Your task to perform on an android device: open device folders in google photos Image 0: 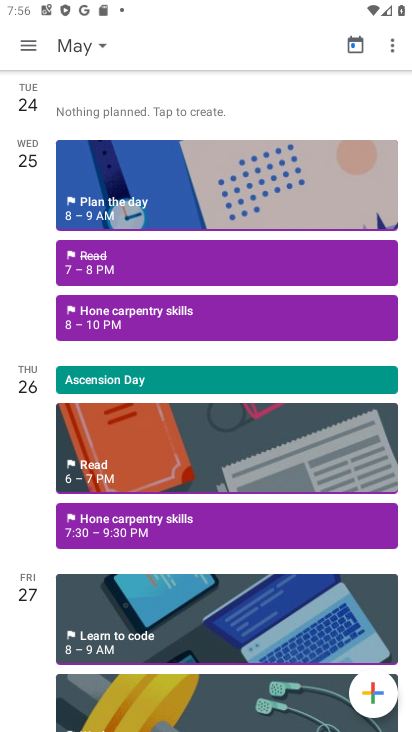
Step 0: press home button
Your task to perform on an android device: open device folders in google photos Image 1: 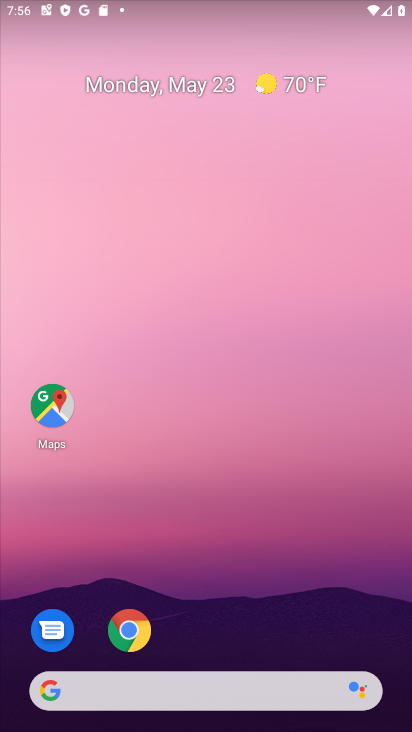
Step 1: drag from (316, 571) to (322, 139)
Your task to perform on an android device: open device folders in google photos Image 2: 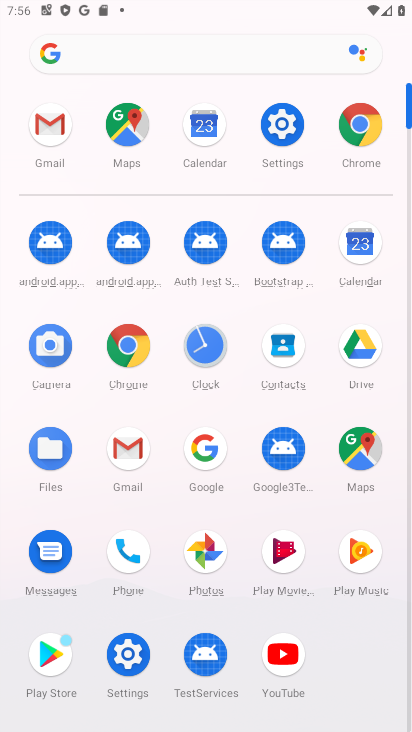
Step 2: click (213, 551)
Your task to perform on an android device: open device folders in google photos Image 3: 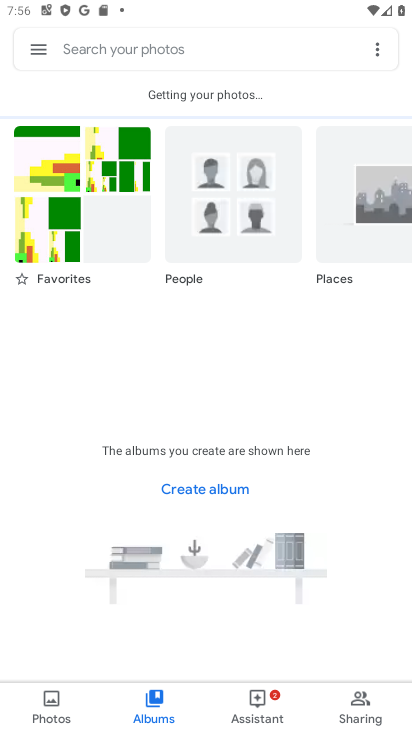
Step 3: click (41, 49)
Your task to perform on an android device: open device folders in google photos Image 4: 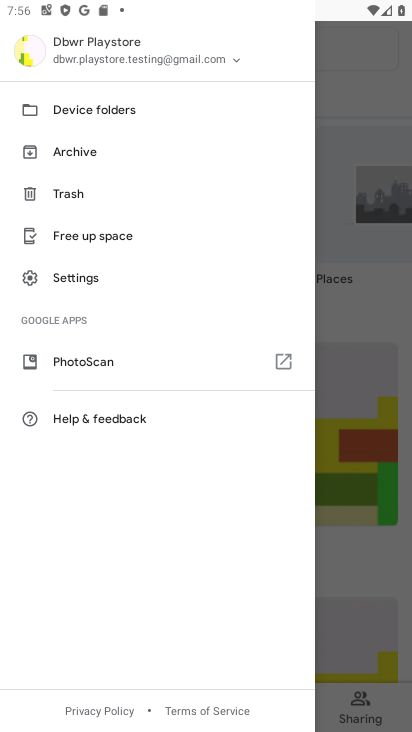
Step 4: click (81, 110)
Your task to perform on an android device: open device folders in google photos Image 5: 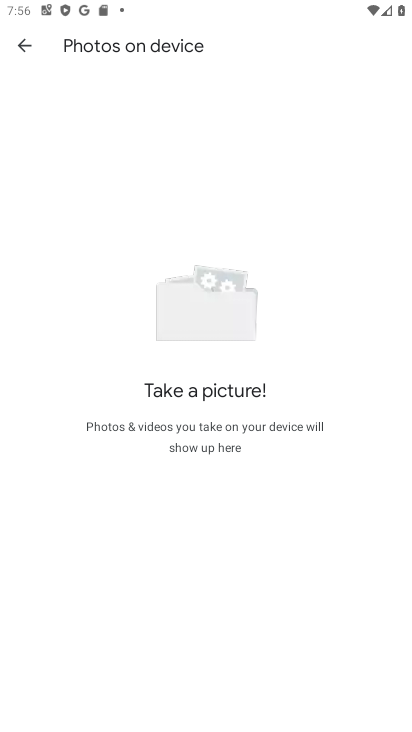
Step 5: task complete